Your task to perform on an android device: Go to Wikipedia Image 0: 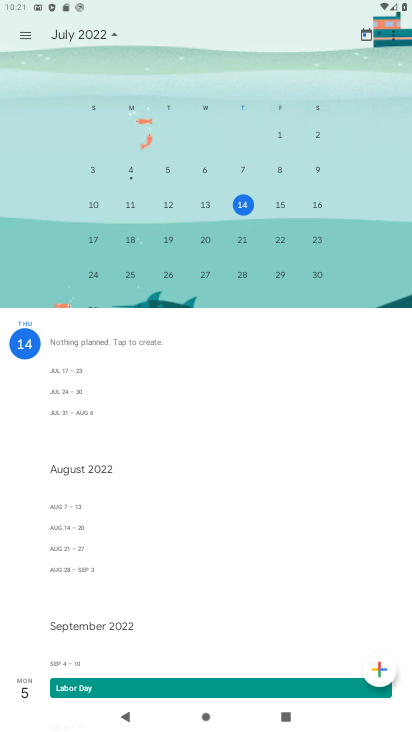
Step 0: press home button
Your task to perform on an android device: Go to Wikipedia Image 1: 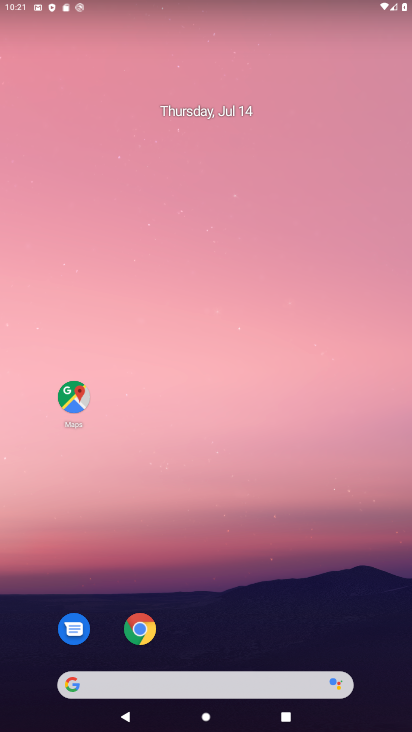
Step 1: click (149, 626)
Your task to perform on an android device: Go to Wikipedia Image 2: 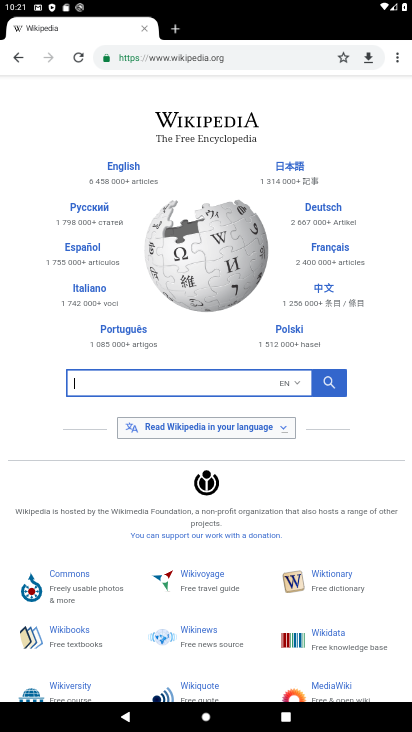
Step 2: task complete